Your task to perform on an android device: Open maps Image 0: 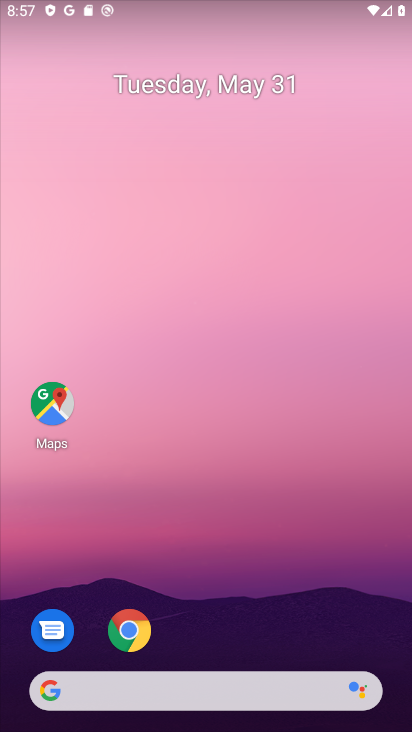
Step 0: click (49, 425)
Your task to perform on an android device: Open maps Image 1: 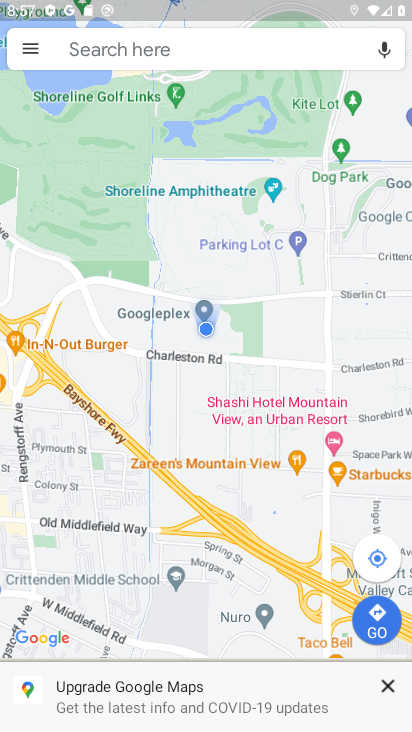
Step 1: task complete